Your task to perform on an android device: delete the emails in spam in the gmail app Image 0: 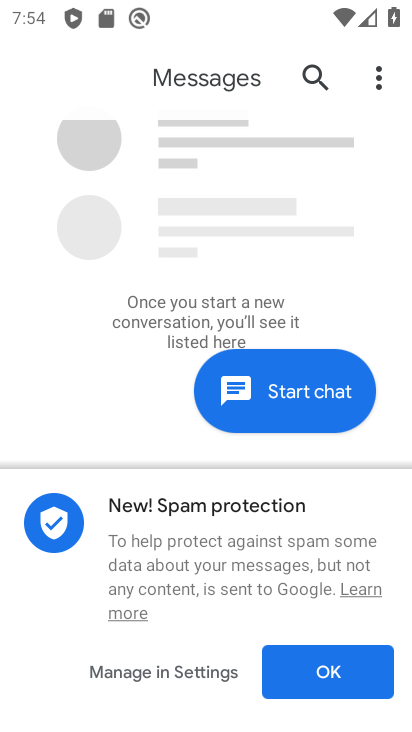
Step 0: press home button
Your task to perform on an android device: delete the emails in spam in the gmail app Image 1: 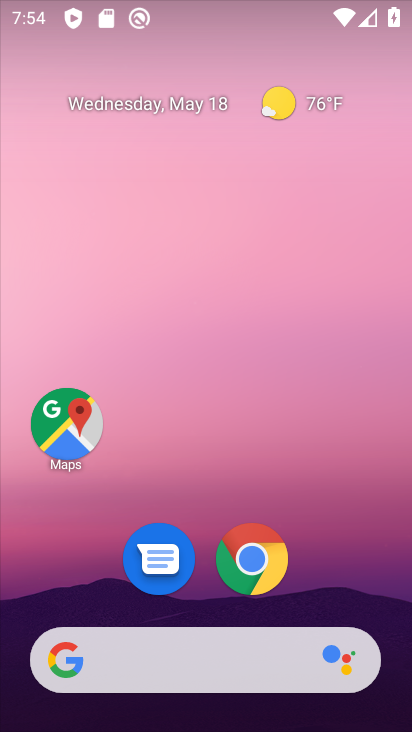
Step 1: drag from (187, 601) to (253, 90)
Your task to perform on an android device: delete the emails in spam in the gmail app Image 2: 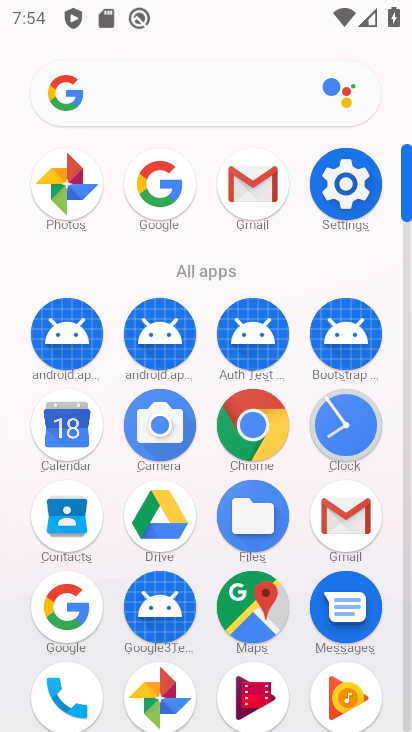
Step 2: click (242, 186)
Your task to perform on an android device: delete the emails in spam in the gmail app Image 3: 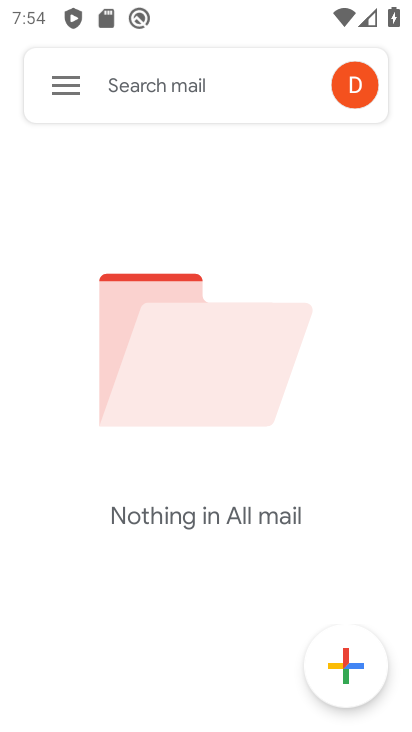
Step 3: click (57, 89)
Your task to perform on an android device: delete the emails in spam in the gmail app Image 4: 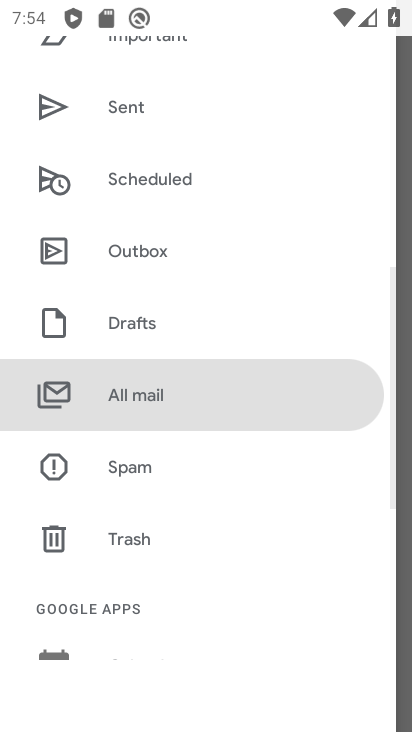
Step 4: click (115, 462)
Your task to perform on an android device: delete the emails in spam in the gmail app Image 5: 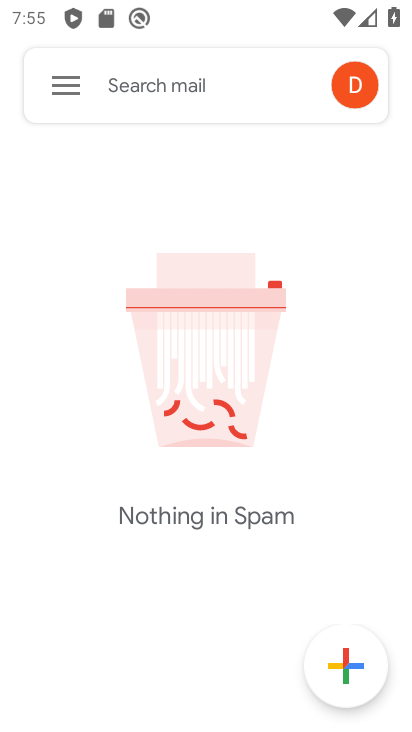
Step 5: task complete